Your task to perform on an android device: Go to sound settings Image 0: 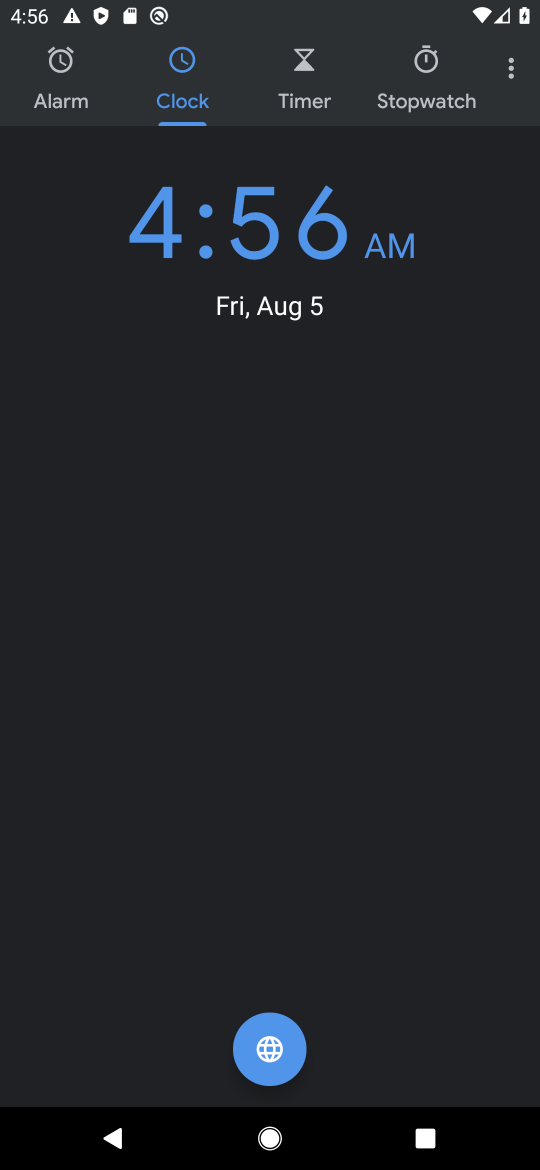
Step 0: press home button
Your task to perform on an android device: Go to sound settings Image 1: 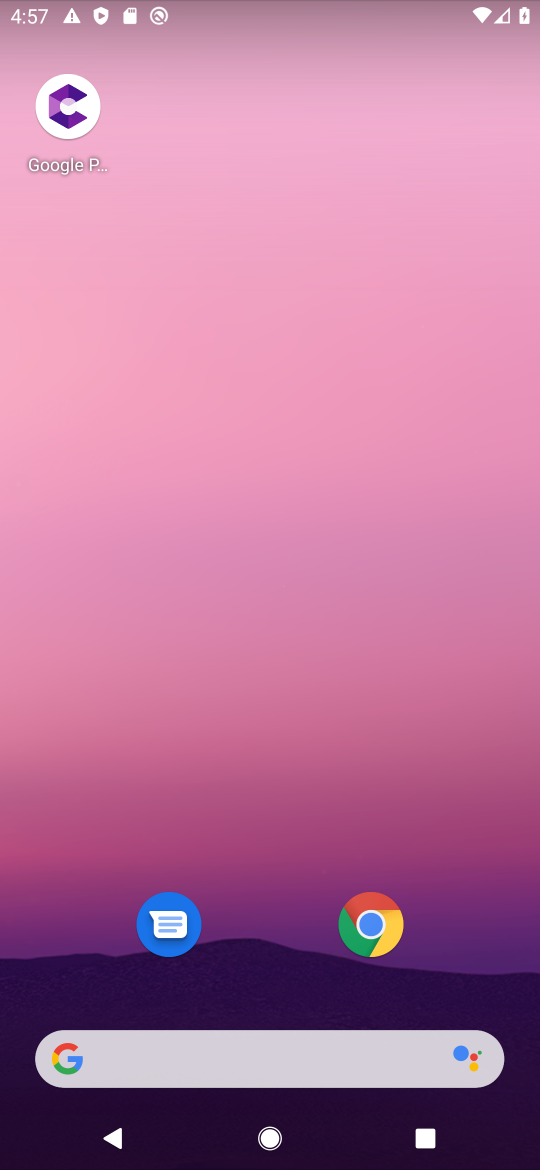
Step 1: drag from (202, 1032) to (306, 251)
Your task to perform on an android device: Go to sound settings Image 2: 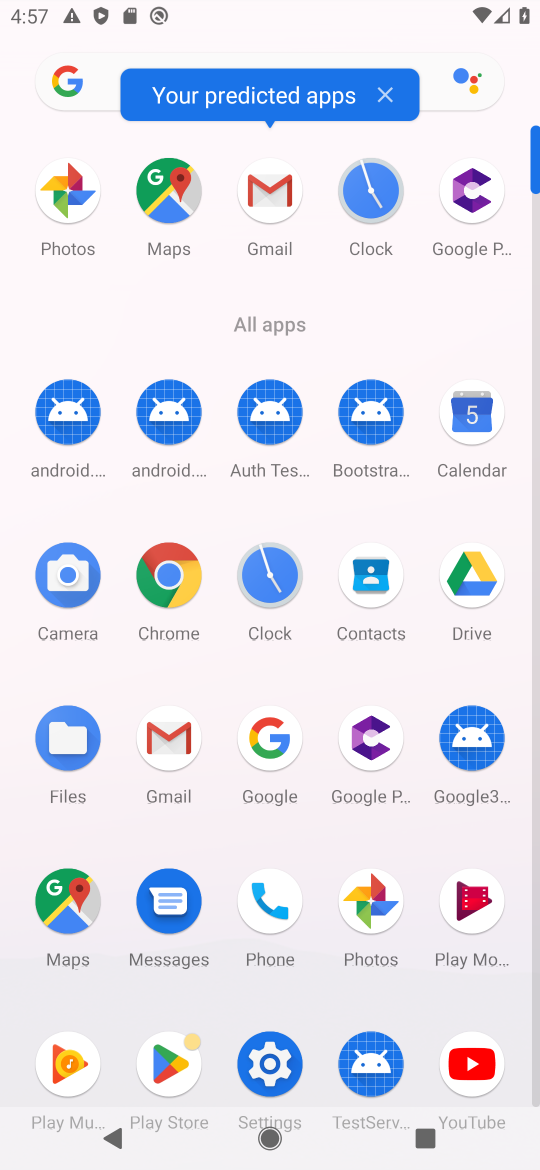
Step 2: click (257, 1065)
Your task to perform on an android device: Go to sound settings Image 3: 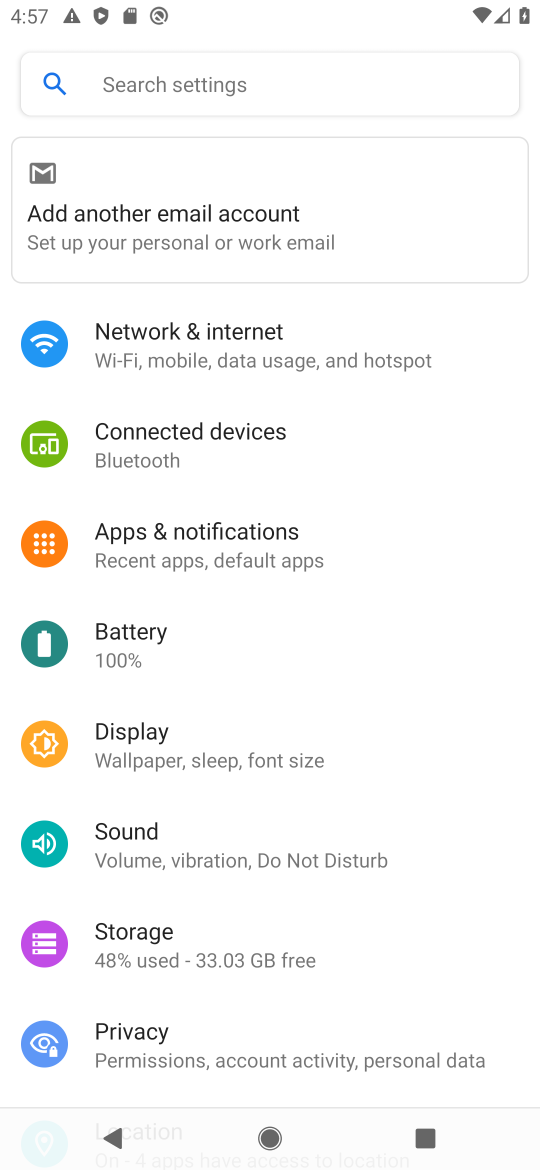
Step 3: click (221, 839)
Your task to perform on an android device: Go to sound settings Image 4: 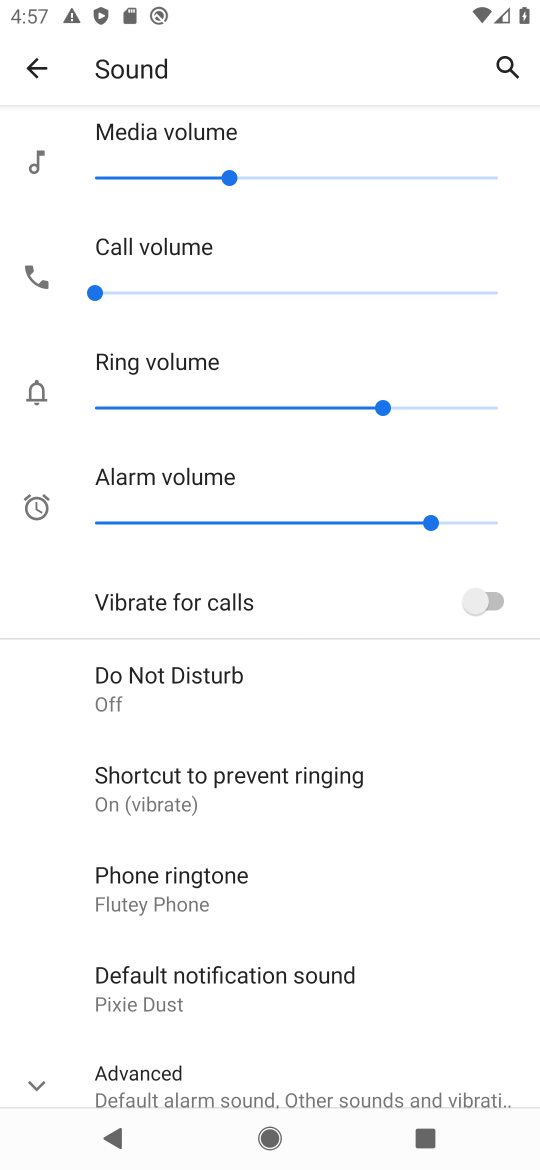
Step 4: task complete